Your task to perform on an android device: turn pop-ups on in chrome Image 0: 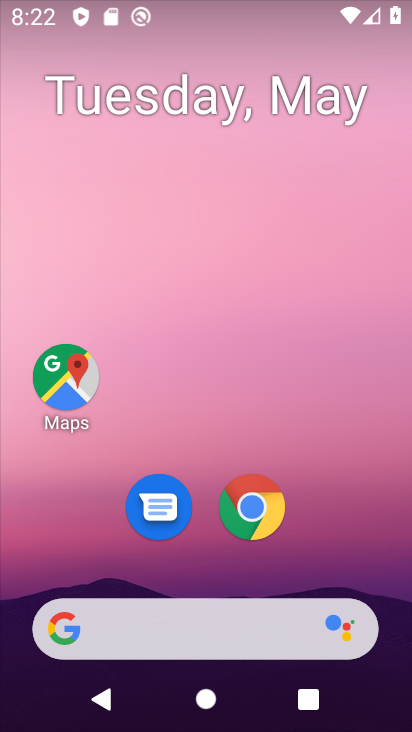
Step 0: click (267, 527)
Your task to perform on an android device: turn pop-ups on in chrome Image 1: 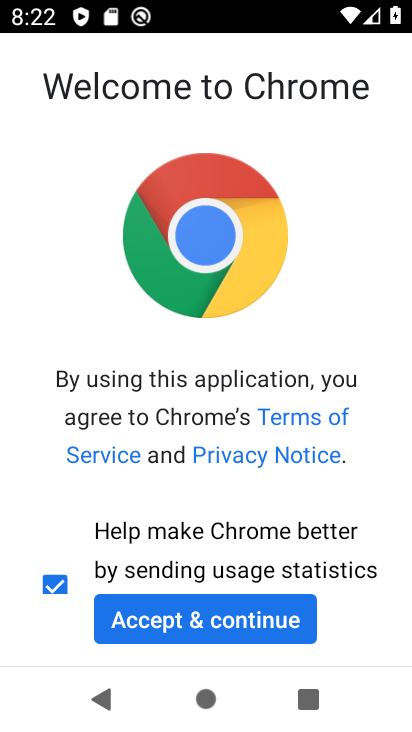
Step 1: click (262, 612)
Your task to perform on an android device: turn pop-ups on in chrome Image 2: 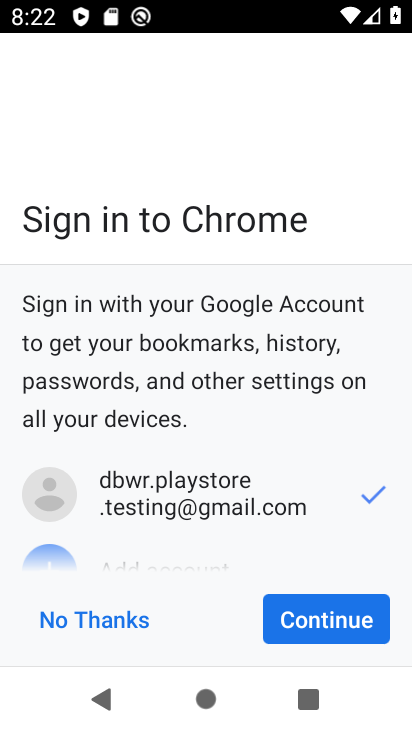
Step 2: click (289, 625)
Your task to perform on an android device: turn pop-ups on in chrome Image 3: 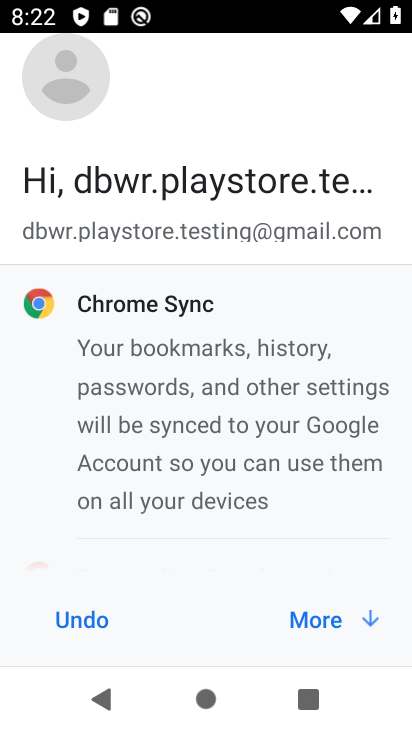
Step 3: click (304, 625)
Your task to perform on an android device: turn pop-ups on in chrome Image 4: 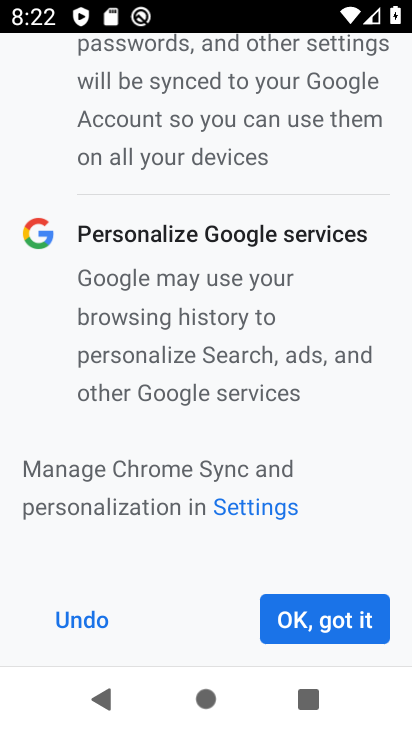
Step 4: click (304, 625)
Your task to perform on an android device: turn pop-ups on in chrome Image 5: 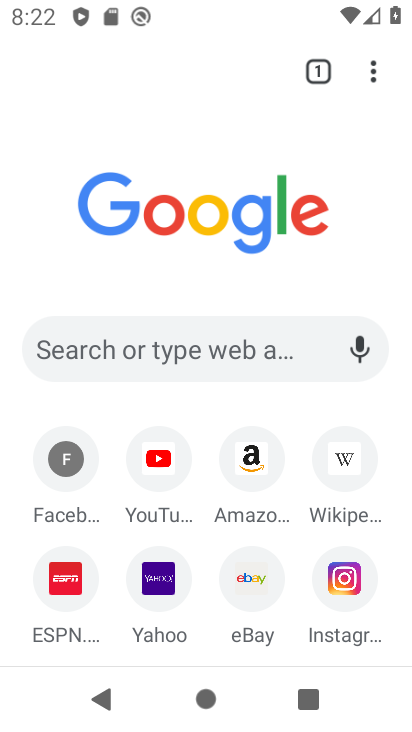
Step 5: click (381, 82)
Your task to perform on an android device: turn pop-ups on in chrome Image 6: 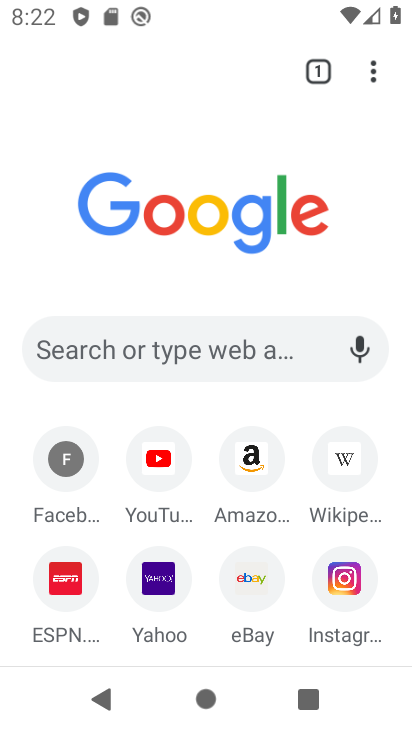
Step 6: click (377, 84)
Your task to perform on an android device: turn pop-ups on in chrome Image 7: 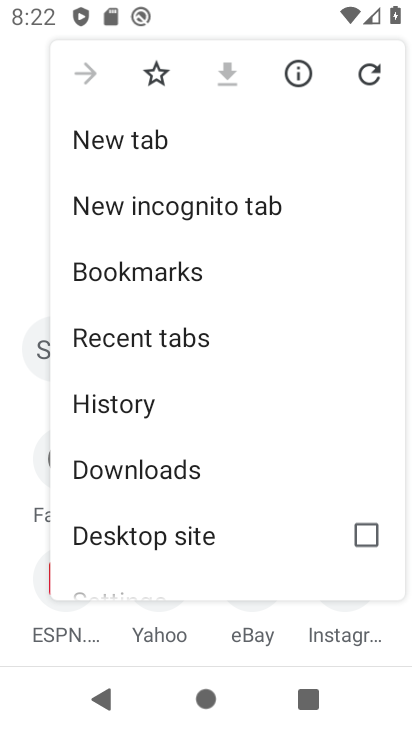
Step 7: drag from (229, 575) to (148, 130)
Your task to perform on an android device: turn pop-ups on in chrome Image 8: 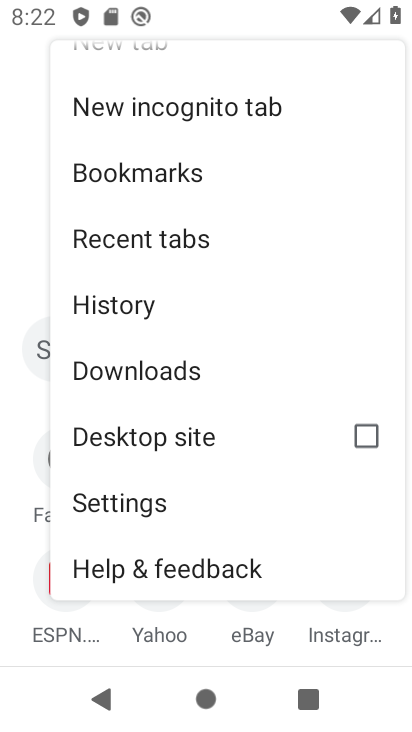
Step 8: click (134, 516)
Your task to perform on an android device: turn pop-ups on in chrome Image 9: 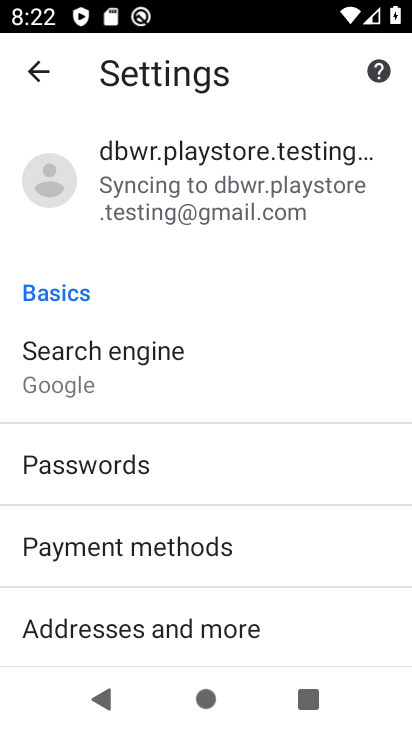
Step 9: drag from (193, 597) to (155, 193)
Your task to perform on an android device: turn pop-ups on in chrome Image 10: 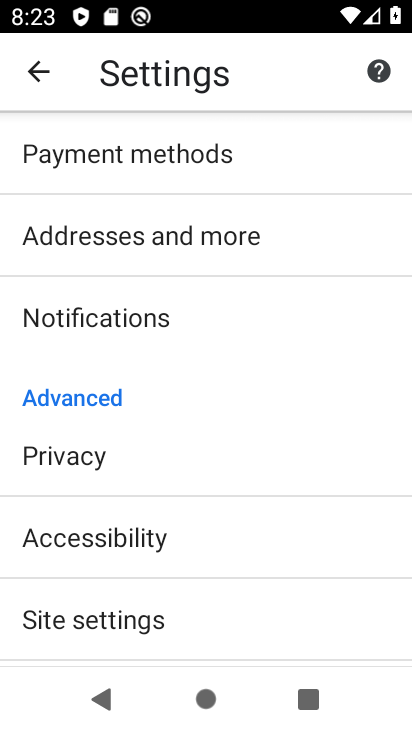
Step 10: click (156, 622)
Your task to perform on an android device: turn pop-ups on in chrome Image 11: 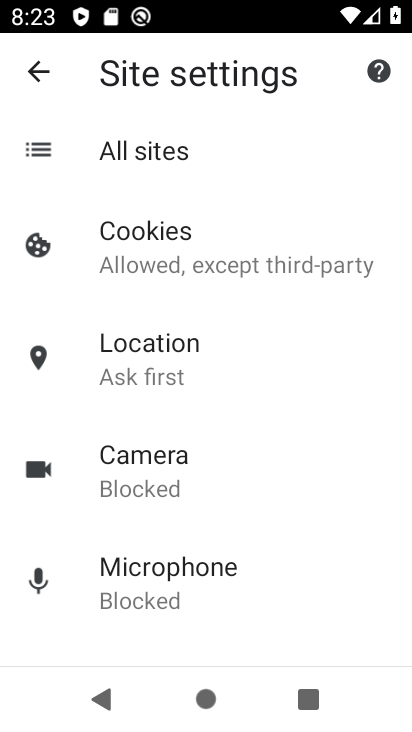
Step 11: drag from (156, 622) to (89, 255)
Your task to perform on an android device: turn pop-ups on in chrome Image 12: 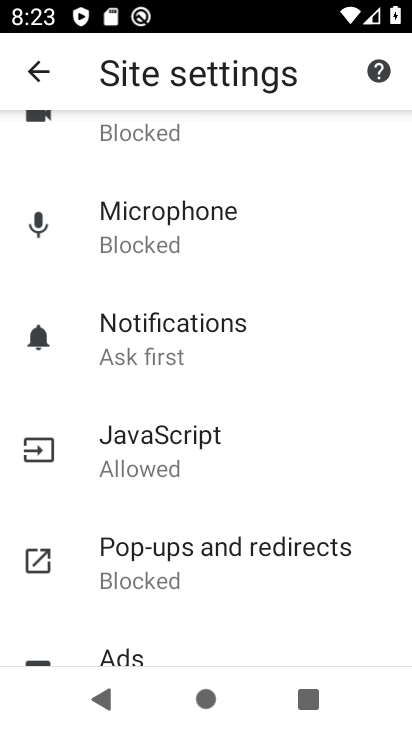
Step 12: click (158, 539)
Your task to perform on an android device: turn pop-ups on in chrome Image 13: 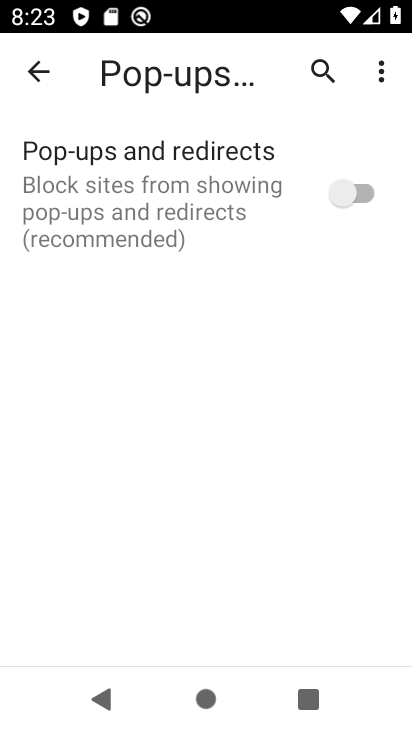
Step 13: click (347, 193)
Your task to perform on an android device: turn pop-ups on in chrome Image 14: 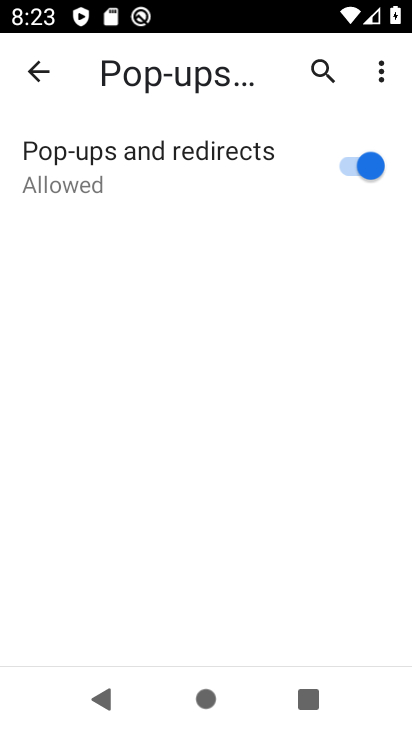
Step 14: task complete